Your task to perform on an android device: Go to internet settings Image 0: 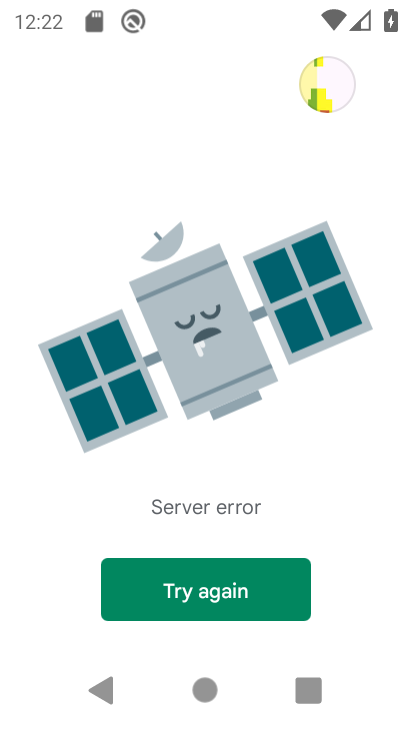
Step 0: press home button
Your task to perform on an android device: Go to internet settings Image 1: 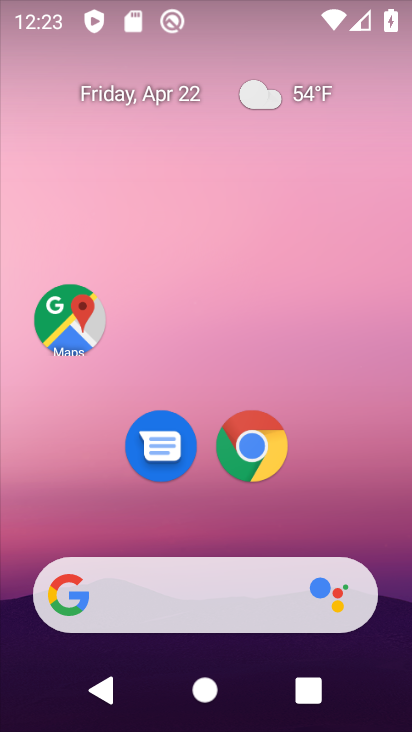
Step 1: drag from (376, 528) to (280, 79)
Your task to perform on an android device: Go to internet settings Image 2: 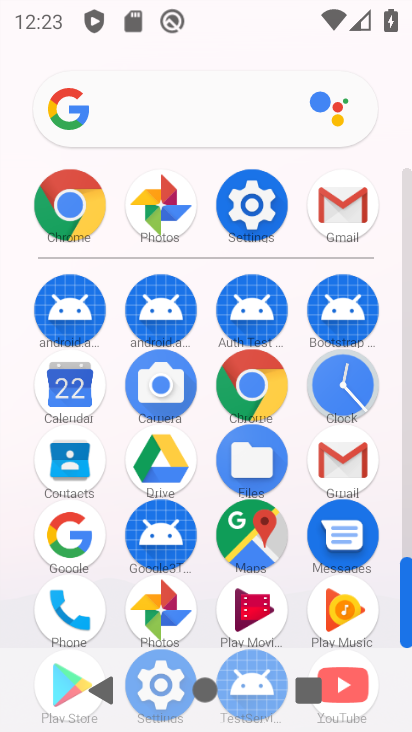
Step 2: click (268, 228)
Your task to perform on an android device: Go to internet settings Image 3: 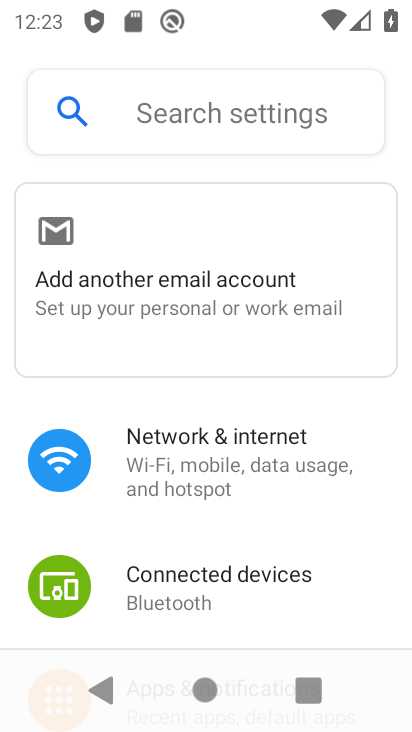
Step 3: drag from (286, 514) to (261, 340)
Your task to perform on an android device: Go to internet settings Image 4: 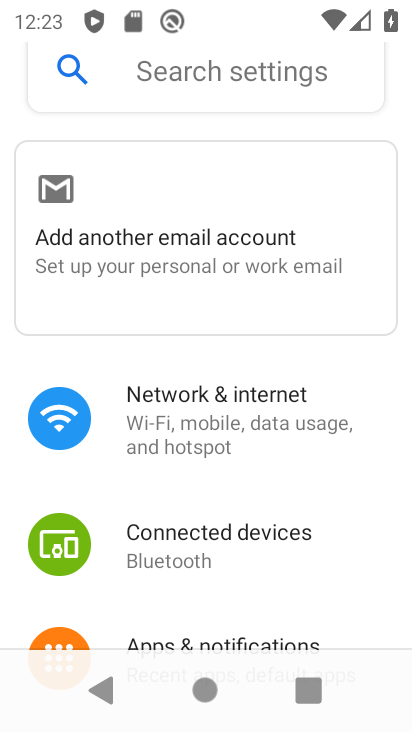
Step 4: click (277, 382)
Your task to perform on an android device: Go to internet settings Image 5: 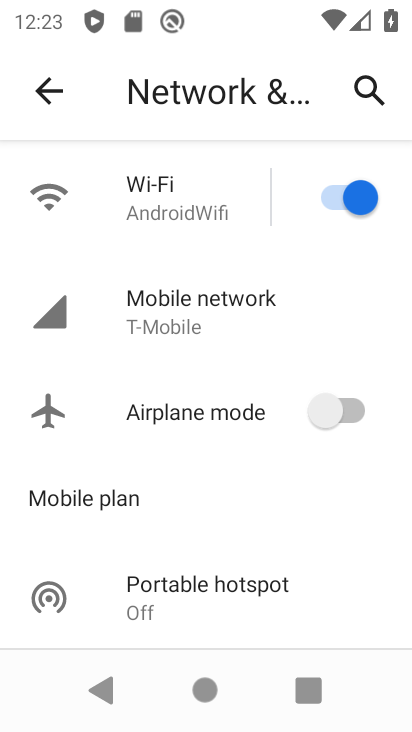
Step 5: task complete